Your task to perform on an android device: Go to battery settings Image 0: 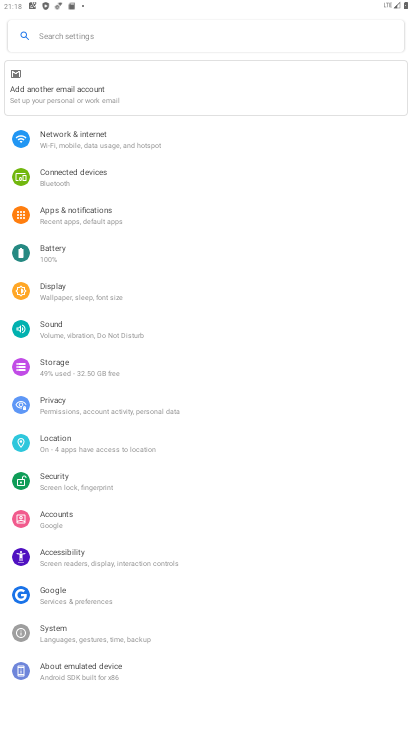
Step 0: drag from (222, 660) to (243, 297)
Your task to perform on an android device: Go to battery settings Image 1: 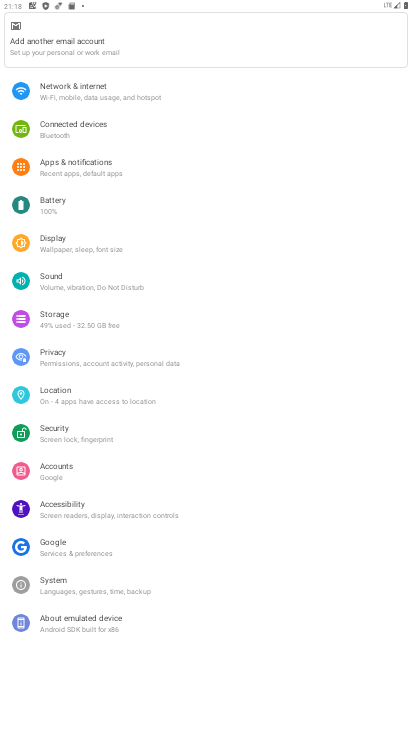
Step 1: drag from (205, 604) to (226, 277)
Your task to perform on an android device: Go to battery settings Image 2: 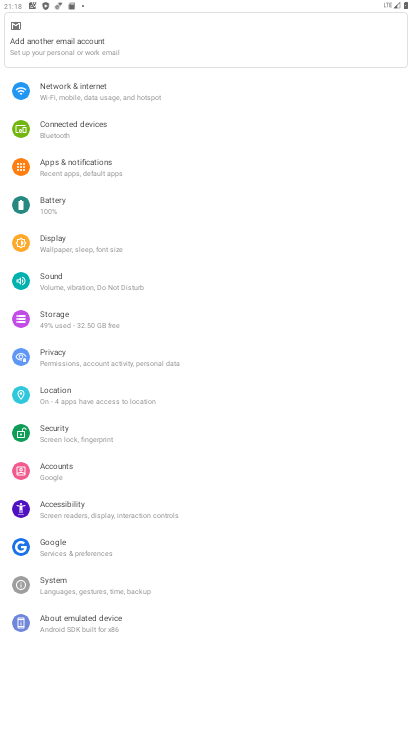
Step 2: click (53, 203)
Your task to perform on an android device: Go to battery settings Image 3: 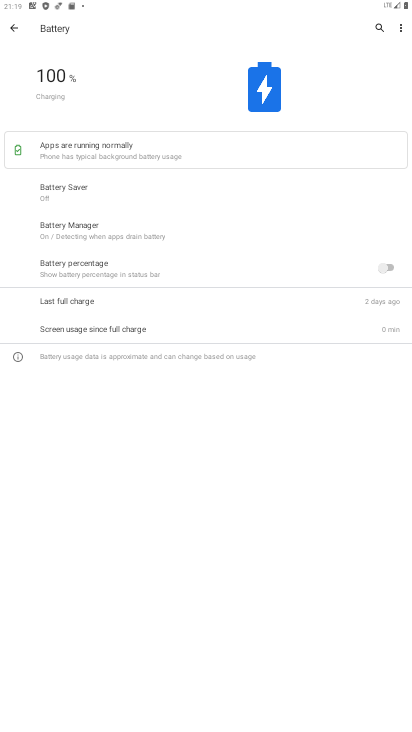
Step 3: task complete